Your task to perform on an android device: allow notifications from all sites in the chrome app Image 0: 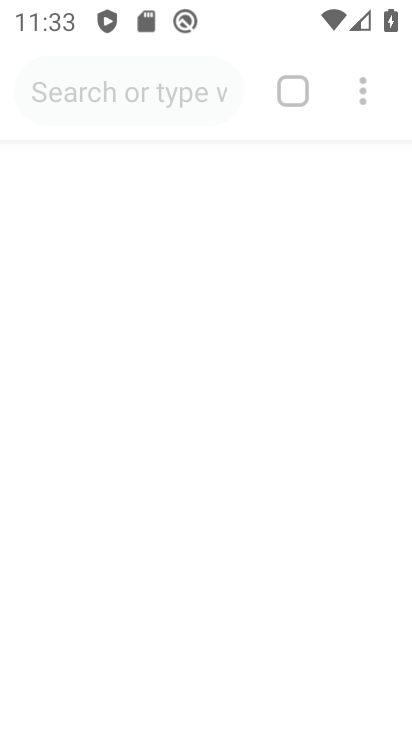
Step 0: drag from (388, 606) to (201, 49)
Your task to perform on an android device: allow notifications from all sites in the chrome app Image 1: 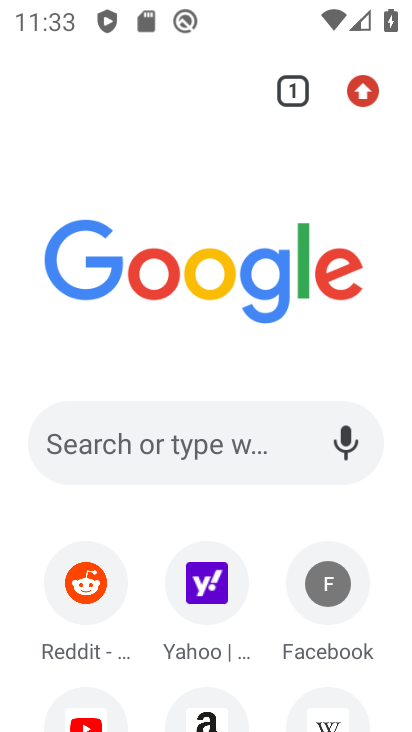
Step 1: press home button
Your task to perform on an android device: allow notifications from all sites in the chrome app Image 2: 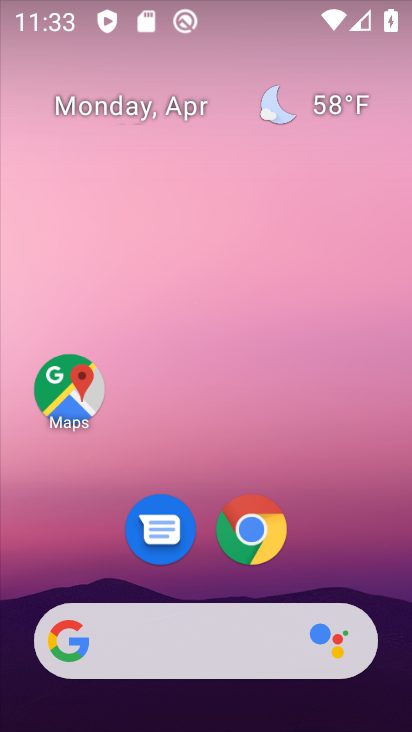
Step 2: drag from (391, 607) to (250, 30)
Your task to perform on an android device: allow notifications from all sites in the chrome app Image 3: 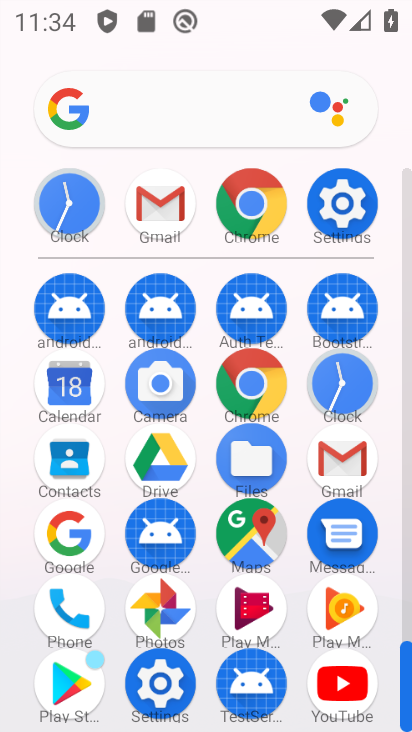
Step 3: click (252, 384)
Your task to perform on an android device: allow notifications from all sites in the chrome app Image 4: 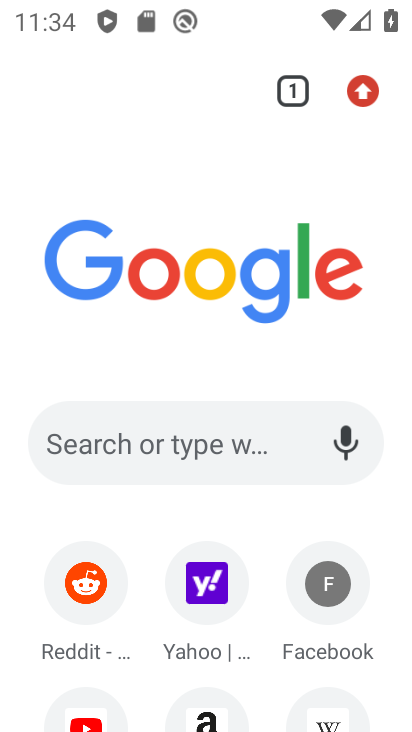
Step 4: click (359, 89)
Your task to perform on an android device: allow notifications from all sites in the chrome app Image 5: 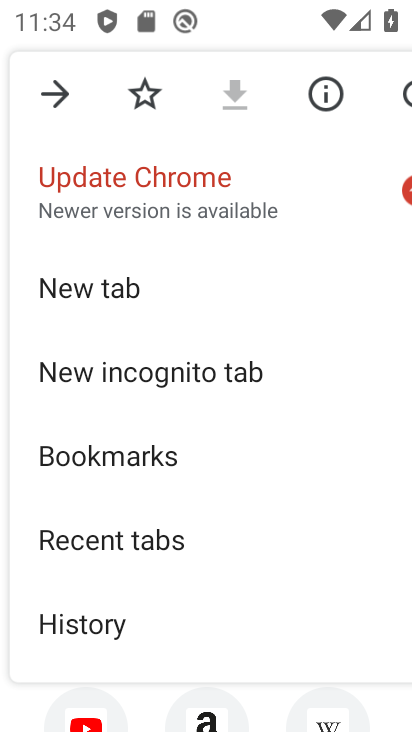
Step 5: drag from (107, 610) to (139, 167)
Your task to perform on an android device: allow notifications from all sites in the chrome app Image 6: 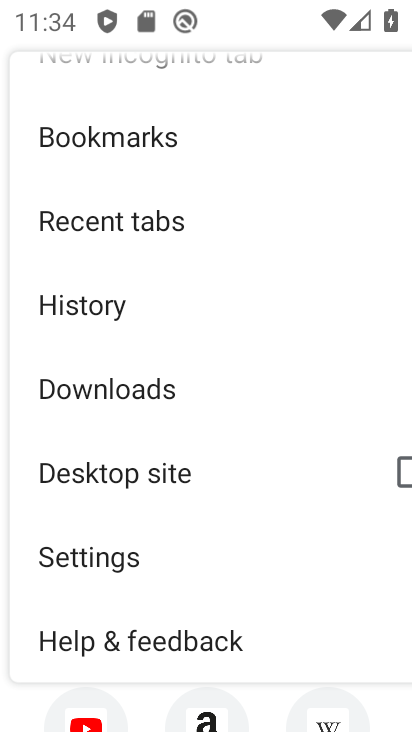
Step 6: click (124, 561)
Your task to perform on an android device: allow notifications from all sites in the chrome app Image 7: 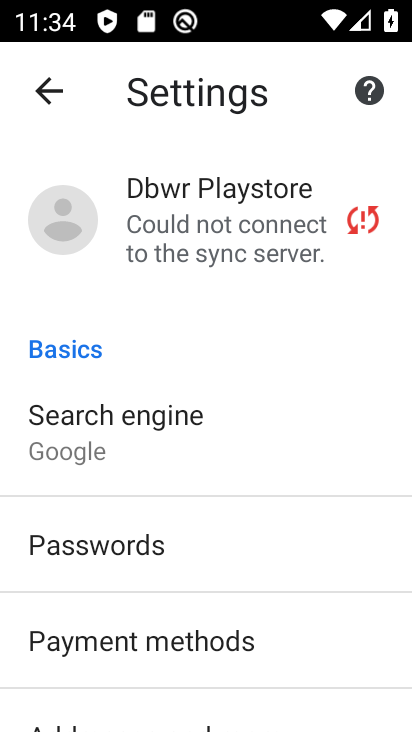
Step 7: drag from (148, 643) to (205, 229)
Your task to perform on an android device: allow notifications from all sites in the chrome app Image 8: 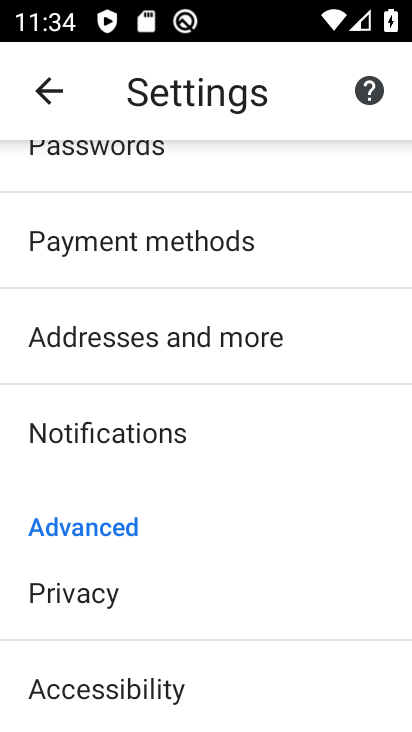
Step 8: click (110, 440)
Your task to perform on an android device: allow notifications from all sites in the chrome app Image 9: 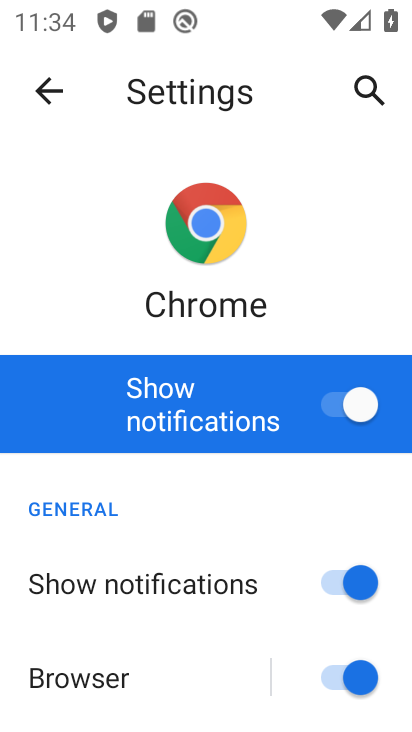
Step 9: task complete